Your task to perform on an android device: check battery use Image 0: 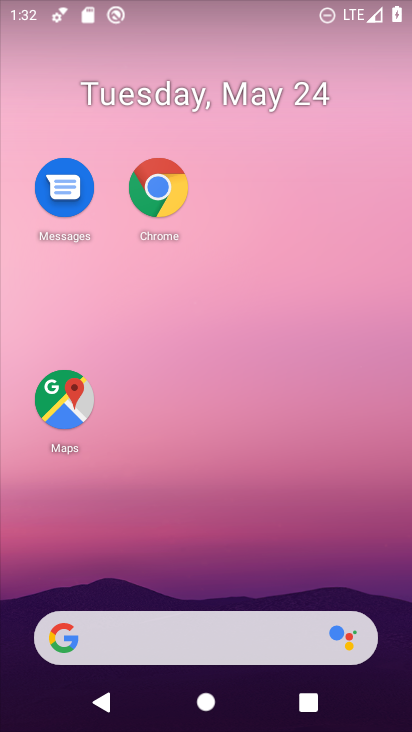
Step 0: drag from (249, 551) to (186, 64)
Your task to perform on an android device: check battery use Image 1: 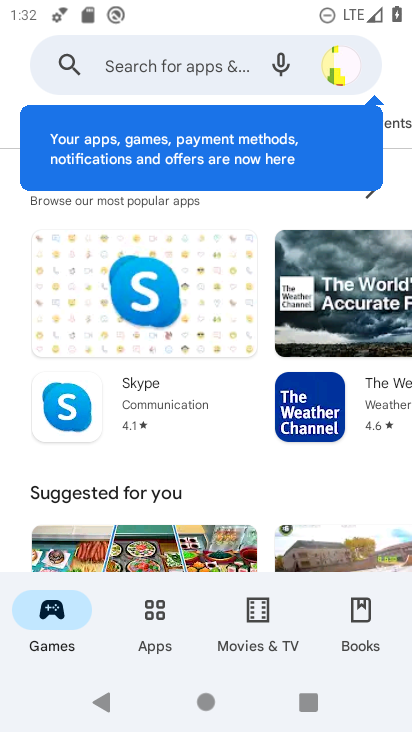
Step 1: press home button
Your task to perform on an android device: check battery use Image 2: 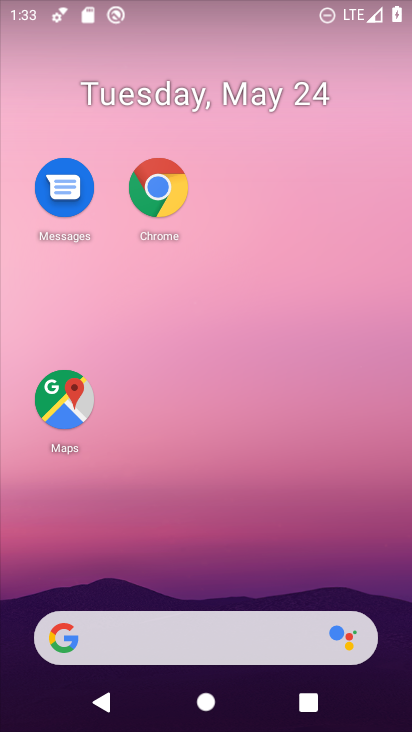
Step 2: drag from (118, 5) to (161, 3)
Your task to perform on an android device: check battery use Image 3: 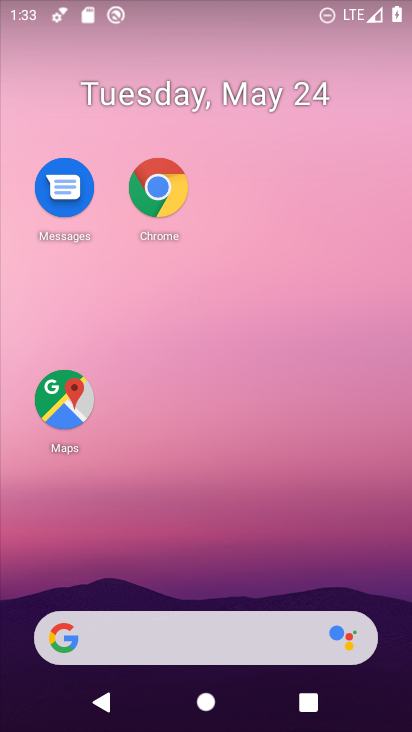
Step 3: drag from (234, 208) to (253, 38)
Your task to perform on an android device: check battery use Image 4: 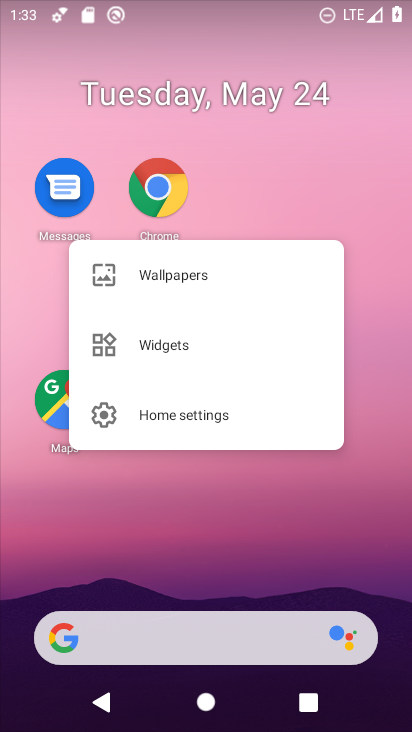
Step 4: click (201, 601)
Your task to perform on an android device: check battery use Image 5: 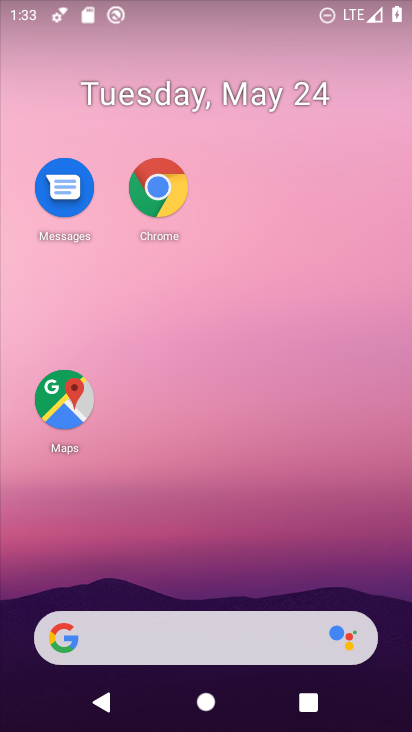
Step 5: drag from (188, 561) to (128, 224)
Your task to perform on an android device: check battery use Image 6: 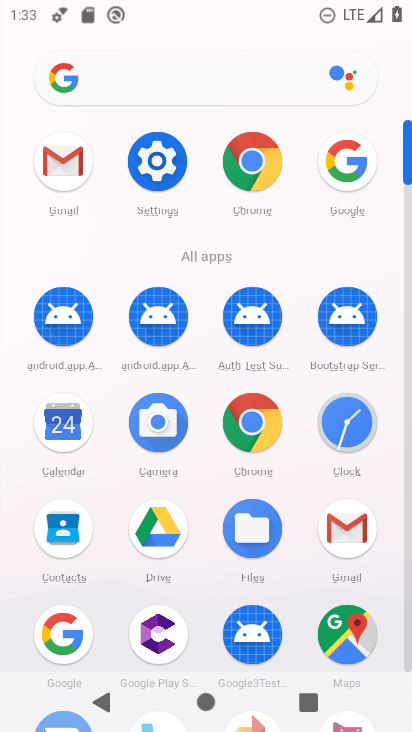
Step 6: click (159, 165)
Your task to perform on an android device: check battery use Image 7: 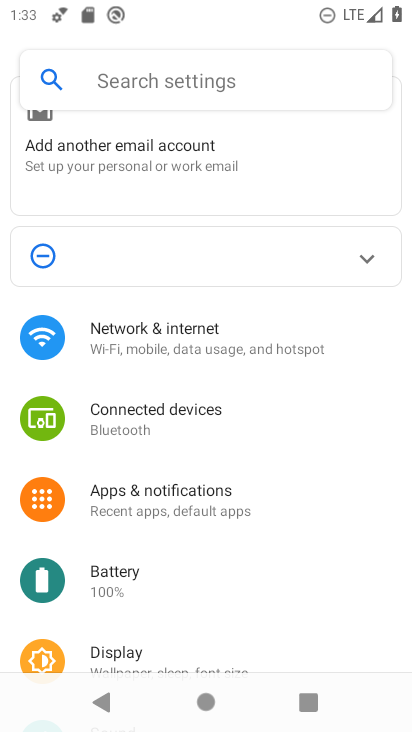
Step 7: drag from (134, 626) to (210, 80)
Your task to perform on an android device: check battery use Image 8: 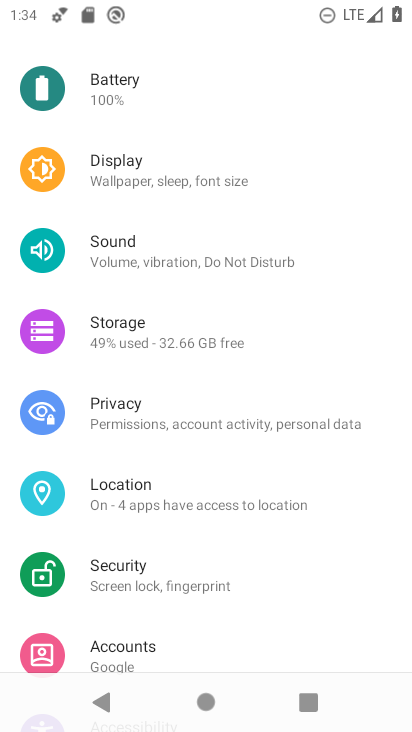
Step 8: drag from (203, 357) to (158, 731)
Your task to perform on an android device: check battery use Image 9: 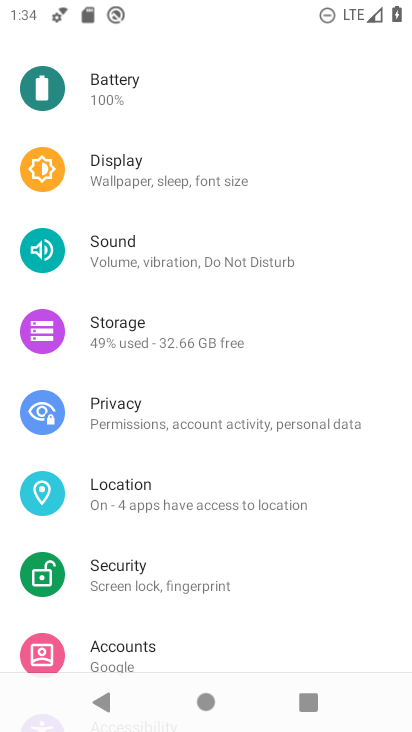
Step 9: click (183, 119)
Your task to perform on an android device: check battery use Image 10: 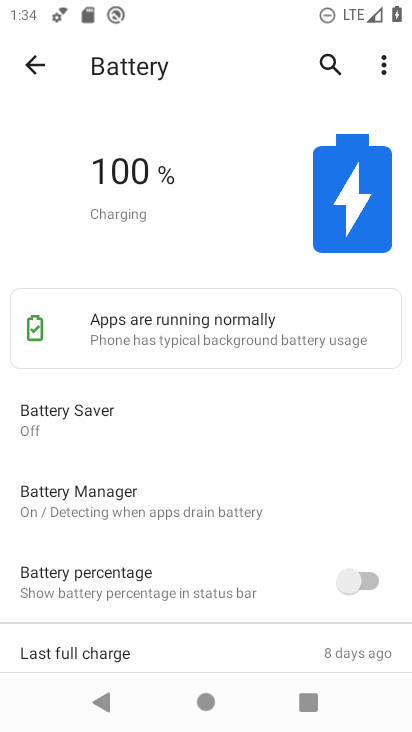
Step 10: task complete